Your task to perform on an android device: Go to wifi settings Image 0: 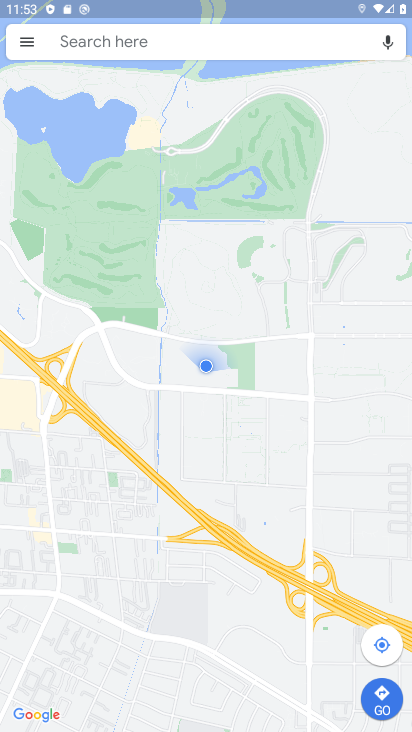
Step 0: press home button
Your task to perform on an android device: Go to wifi settings Image 1: 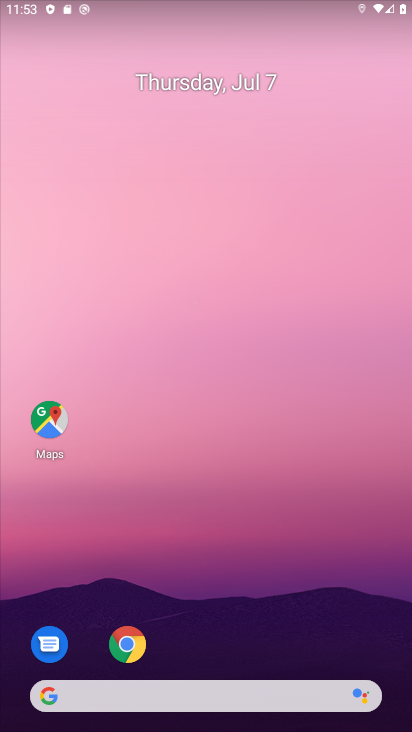
Step 1: drag from (222, 526) to (265, 45)
Your task to perform on an android device: Go to wifi settings Image 2: 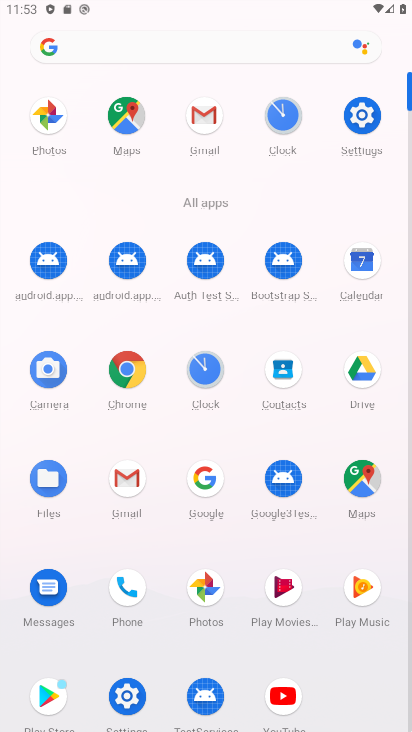
Step 2: click (131, 699)
Your task to perform on an android device: Go to wifi settings Image 3: 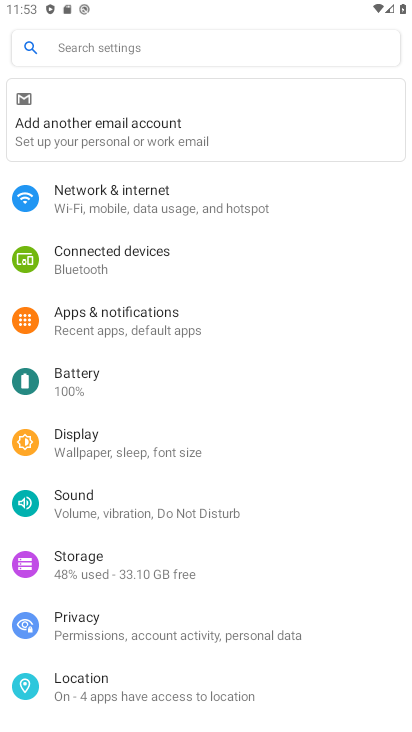
Step 3: click (151, 211)
Your task to perform on an android device: Go to wifi settings Image 4: 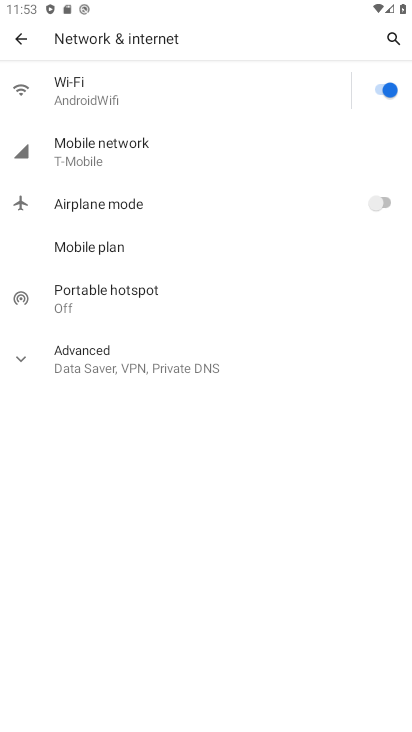
Step 4: click (110, 97)
Your task to perform on an android device: Go to wifi settings Image 5: 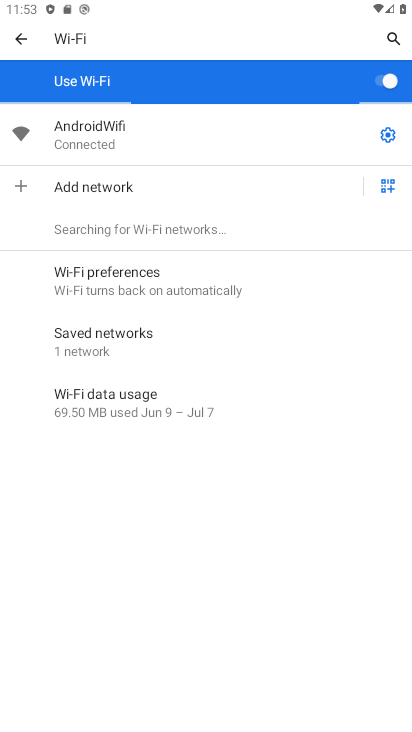
Step 5: task complete